Your task to perform on an android device: uninstall "Firefox Browser" Image 0: 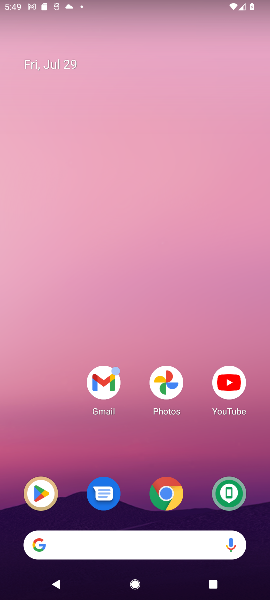
Step 0: drag from (169, 531) to (170, 197)
Your task to perform on an android device: uninstall "Firefox Browser" Image 1: 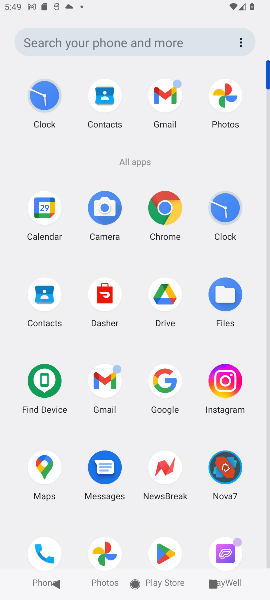
Step 1: click (162, 546)
Your task to perform on an android device: uninstall "Firefox Browser" Image 2: 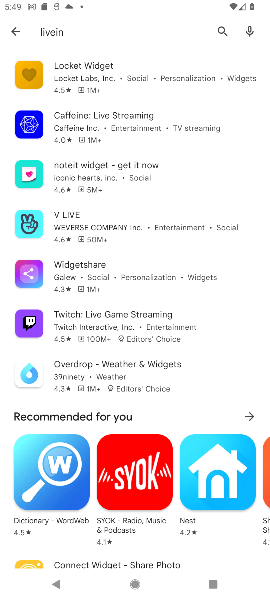
Step 2: click (223, 29)
Your task to perform on an android device: uninstall "Firefox Browser" Image 3: 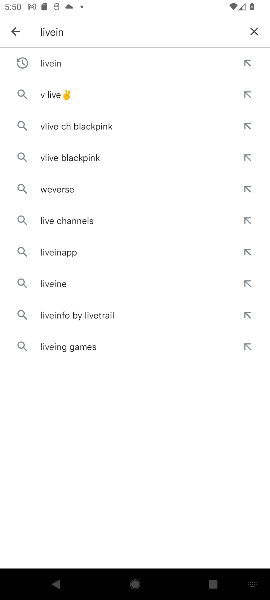
Step 3: click (255, 29)
Your task to perform on an android device: uninstall "Firefox Browser" Image 4: 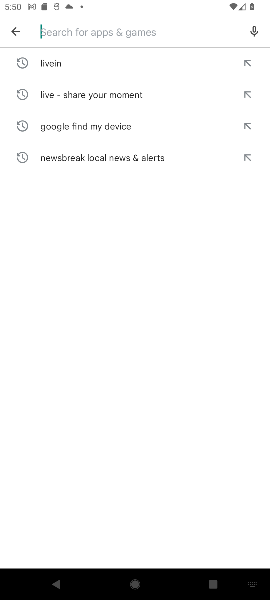
Step 4: type "Firefox browser"
Your task to perform on an android device: uninstall "Firefox Browser" Image 5: 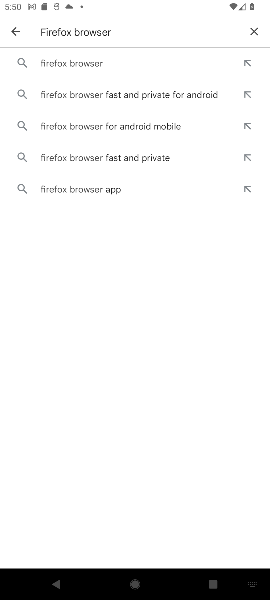
Step 5: click (69, 64)
Your task to perform on an android device: uninstall "Firefox Browser" Image 6: 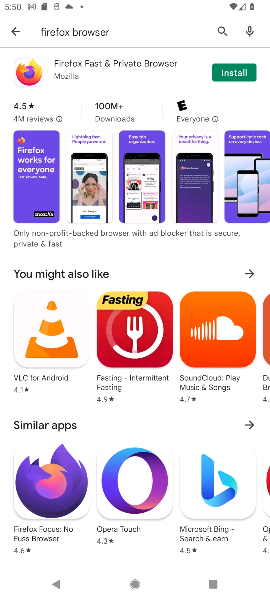
Step 6: task complete